Your task to perform on an android device: delete location history Image 0: 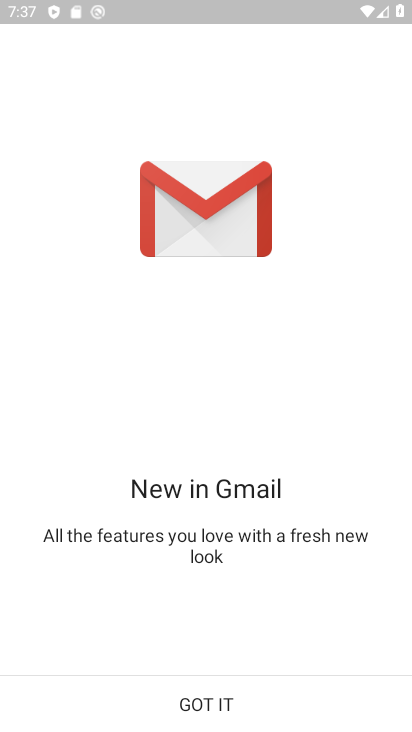
Step 0: press home button
Your task to perform on an android device: delete location history Image 1: 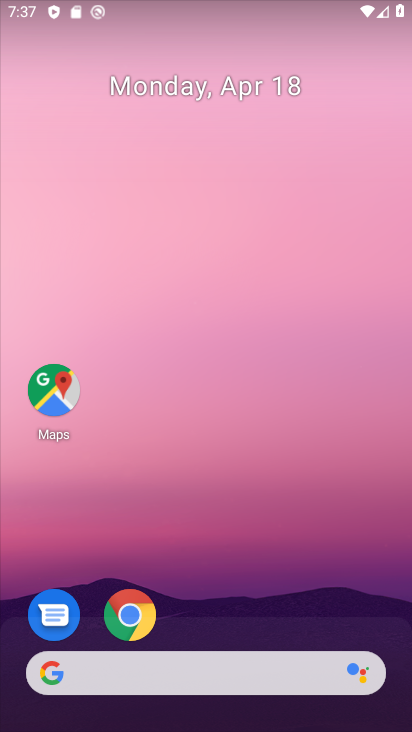
Step 1: click (39, 393)
Your task to perform on an android device: delete location history Image 2: 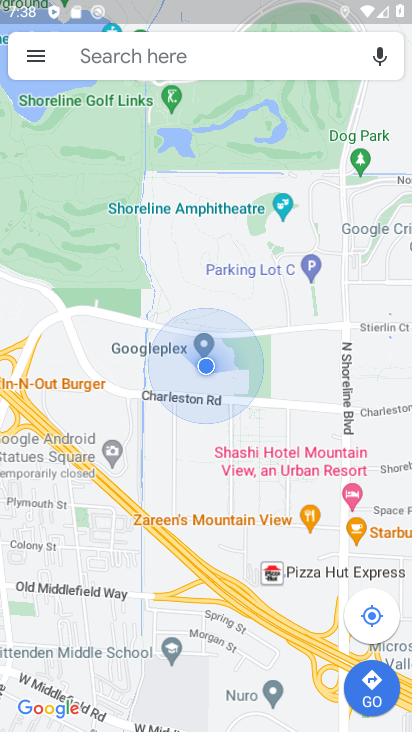
Step 2: click (37, 48)
Your task to perform on an android device: delete location history Image 3: 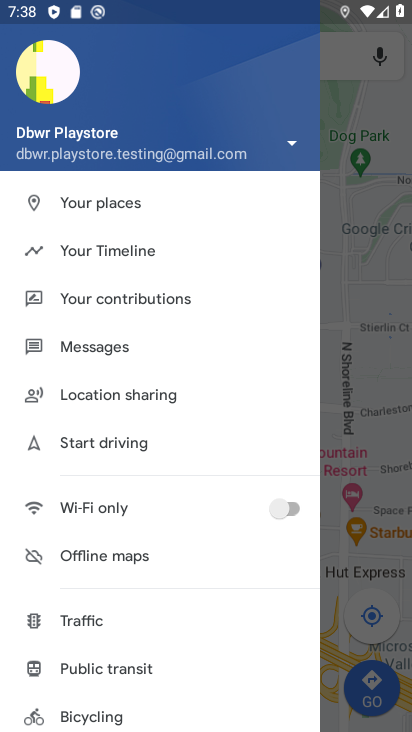
Step 3: click (96, 244)
Your task to perform on an android device: delete location history Image 4: 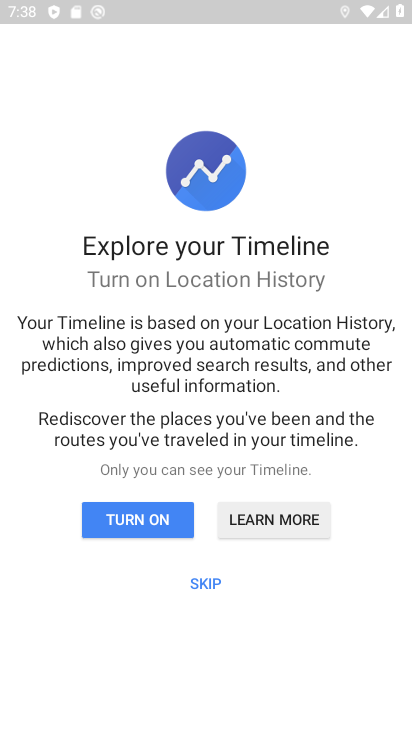
Step 4: click (203, 583)
Your task to perform on an android device: delete location history Image 5: 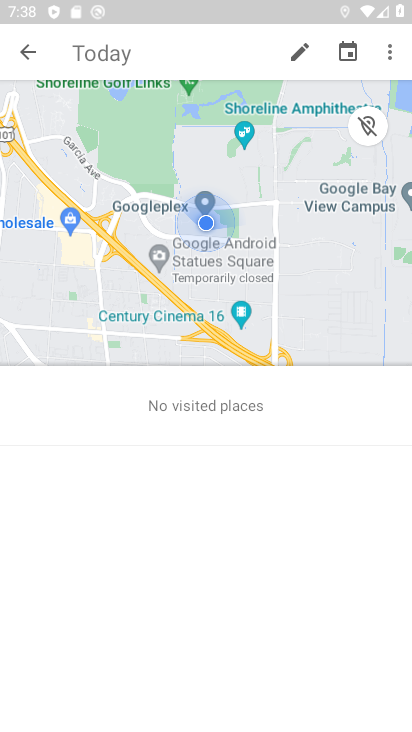
Step 5: click (387, 47)
Your task to perform on an android device: delete location history Image 6: 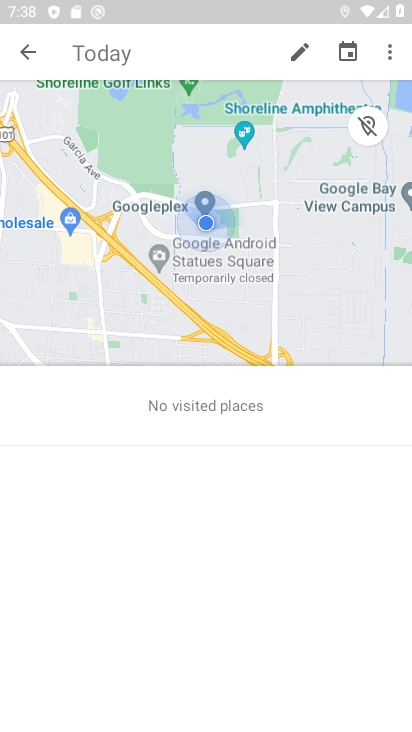
Step 6: click (387, 47)
Your task to perform on an android device: delete location history Image 7: 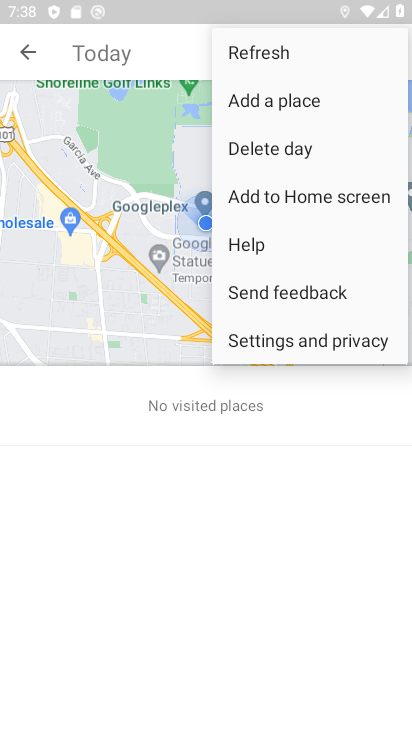
Step 7: click (345, 338)
Your task to perform on an android device: delete location history Image 8: 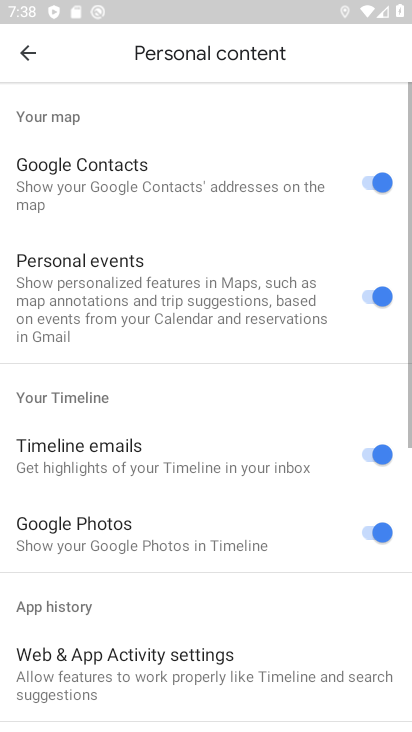
Step 8: drag from (212, 579) to (321, 171)
Your task to perform on an android device: delete location history Image 9: 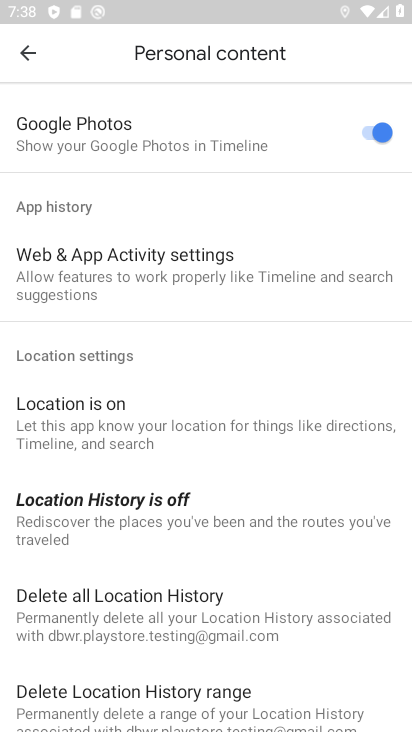
Step 9: click (166, 625)
Your task to perform on an android device: delete location history Image 10: 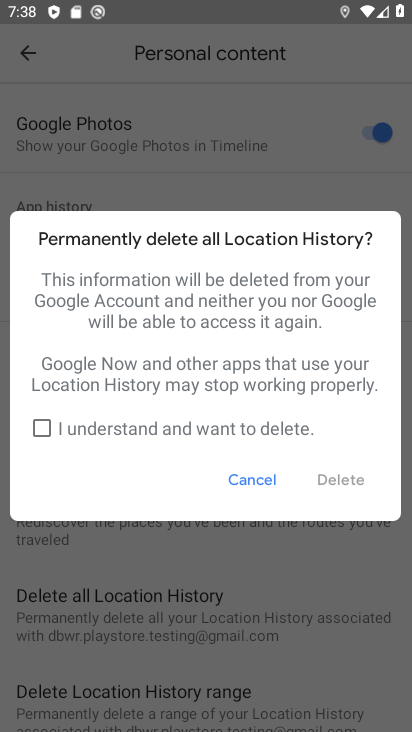
Step 10: click (39, 424)
Your task to perform on an android device: delete location history Image 11: 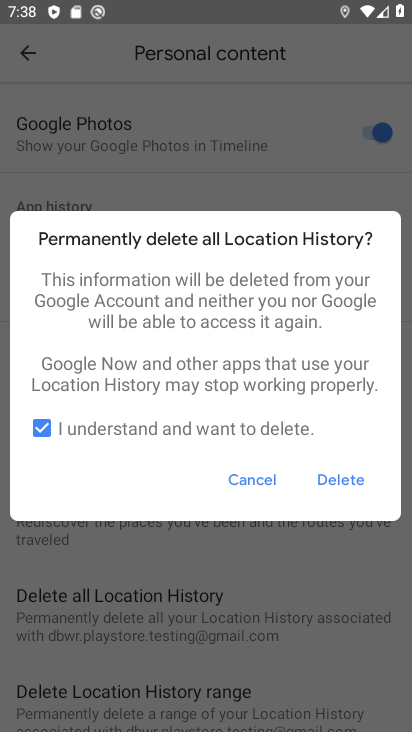
Step 11: click (337, 469)
Your task to perform on an android device: delete location history Image 12: 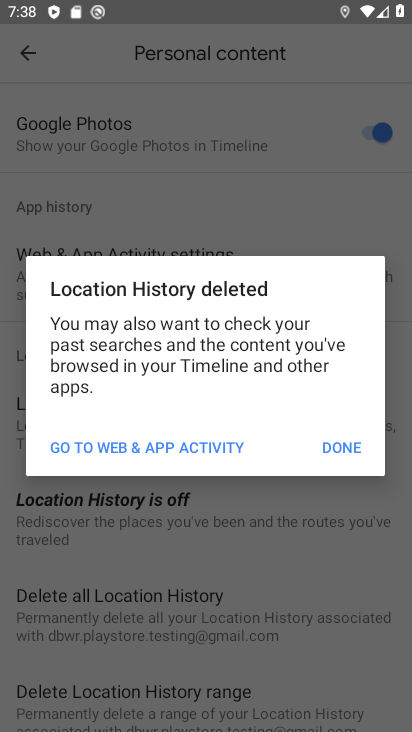
Step 12: click (347, 443)
Your task to perform on an android device: delete location history Image 13: 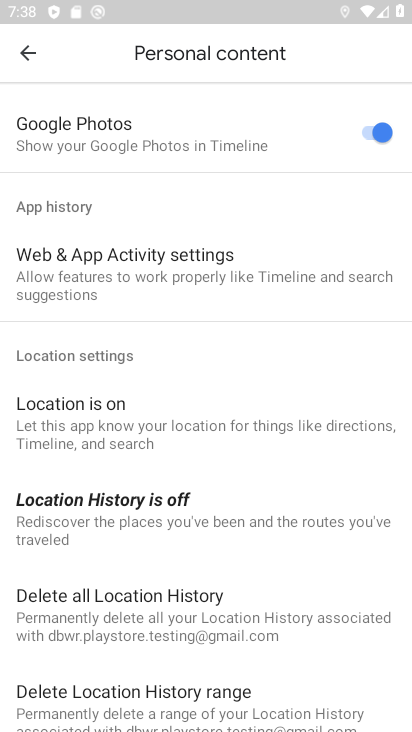
Step 13: task complete